Your task to perform on an android device: move a message to another label in the gmail app Image 0: 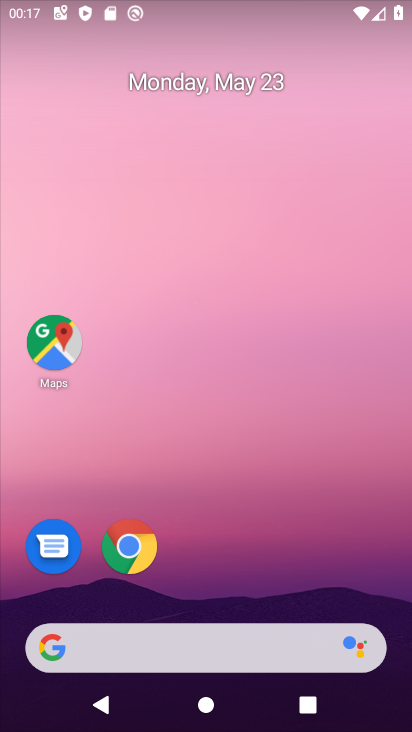
Step 0: drag from (207, 565) to (280, 134)
Your task to perform on an android device: move a message to another label in the gmail app Image 1: 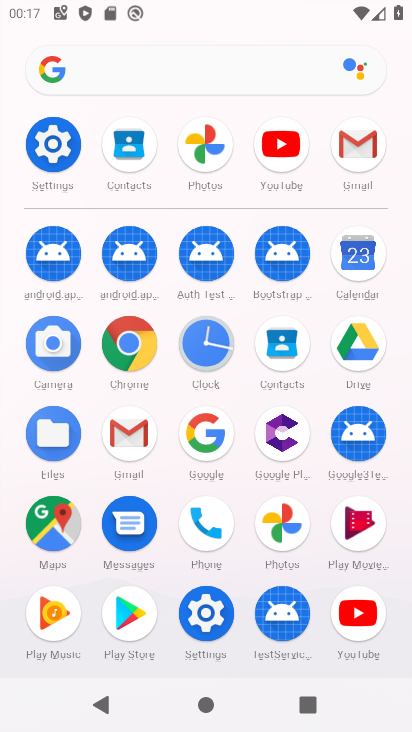
Step 1: click (131, 428)
Your task to perform on an android device: move a message to another label in the gmail app Image 2: 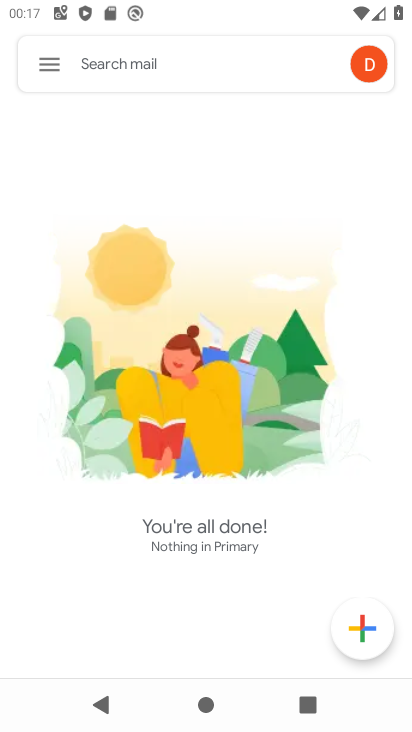
Step 2: click (41, 68)
Your task to perform on an android device: move a message to another label in the gmail app Image 3: 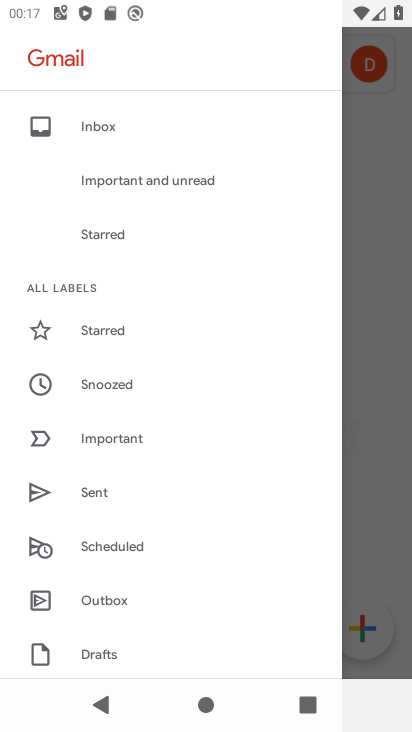
Step 3: task complete